Your task to perform on an android device: stop showing notifications on the lock screen Image 0: 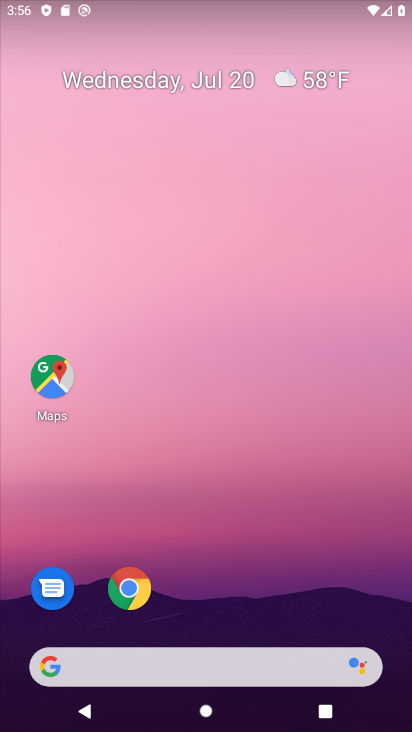
Step 0: drag from (167, 649) to (214, 119)
Your task to perform on an android device: stop showing notifications on the lock screen Image 1: 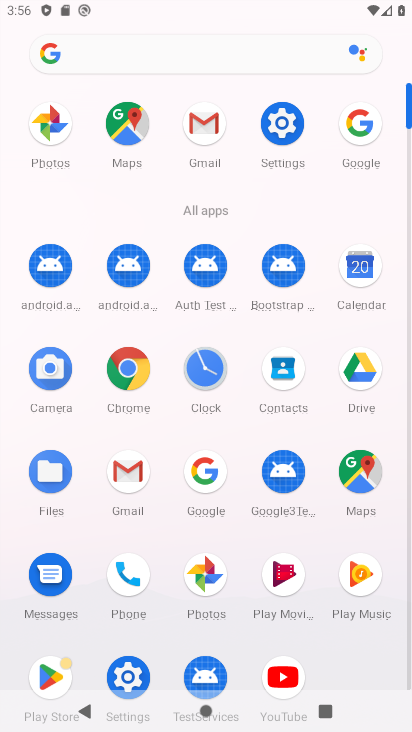
Step 1: click (279, 133)
Your task to perform on an android device: stop showing notifications on the lock screen Image 2: 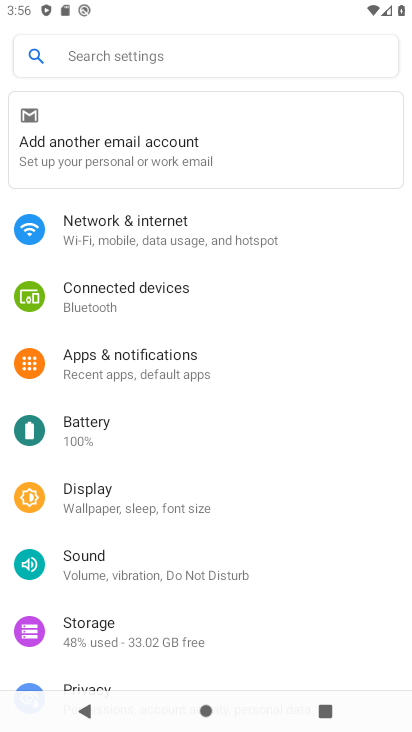
Step 2: drag from (107, 657) to (154, 257)
Your task to perform on an android device: stop showing notifications on the lock screen Image 3: 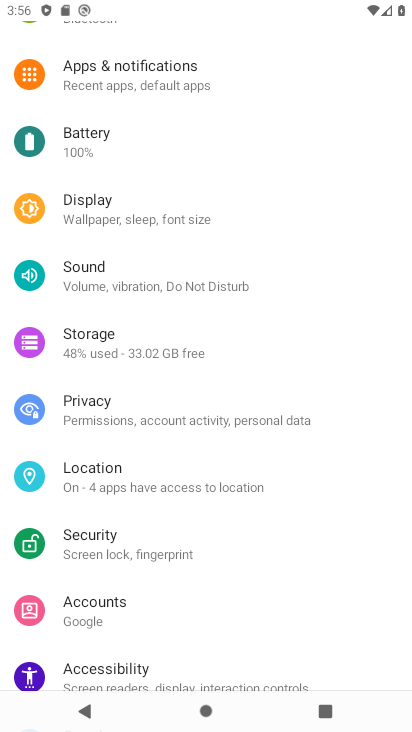
Step 3: click (107, 410)
Your task to perform on an android device: stop showing notifications on the lock screen Image 4: 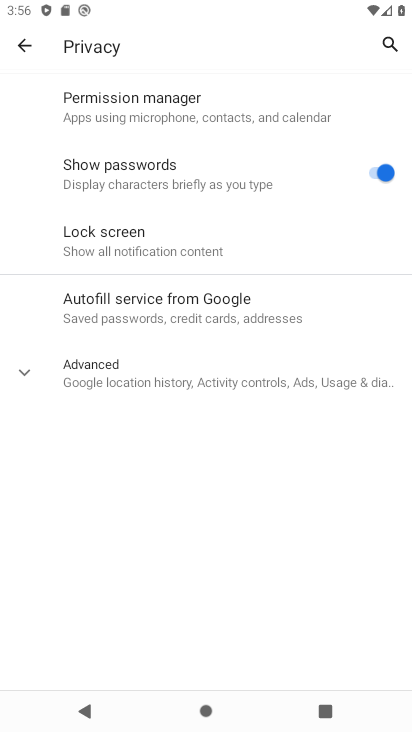
Step 4: click (95, 366)
Your task to perform on an android device: stop showing notifications on the lock screen Image 5: 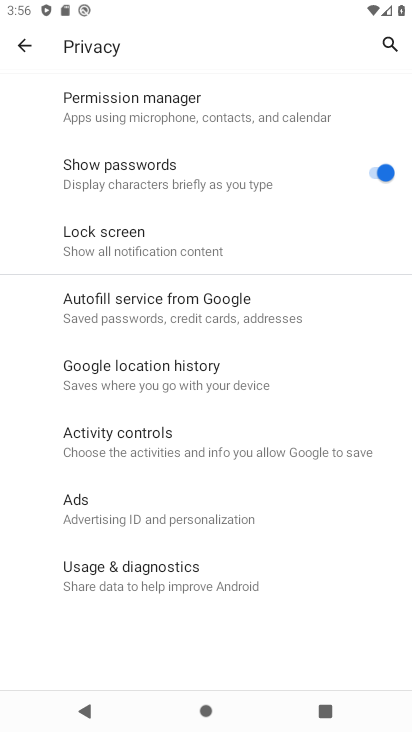
Step 5: click (100, 240)
Your task to perform on an android device: stop showing notifications on the lock screen Image 6: 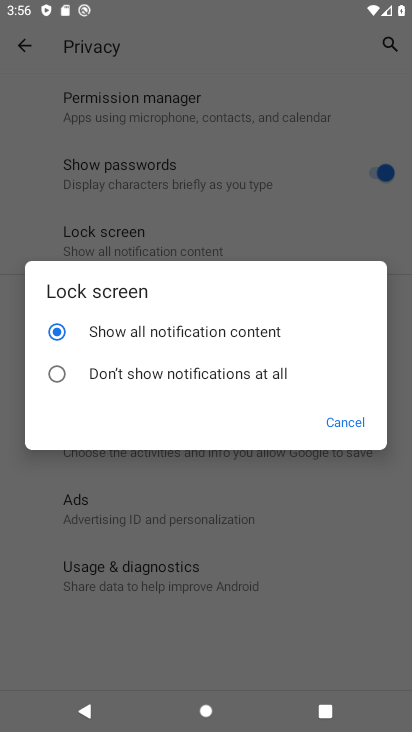
Step 6: click (146, 376)
Your task to perform on an android device: stop showing notifications on the lock screen Image 7: 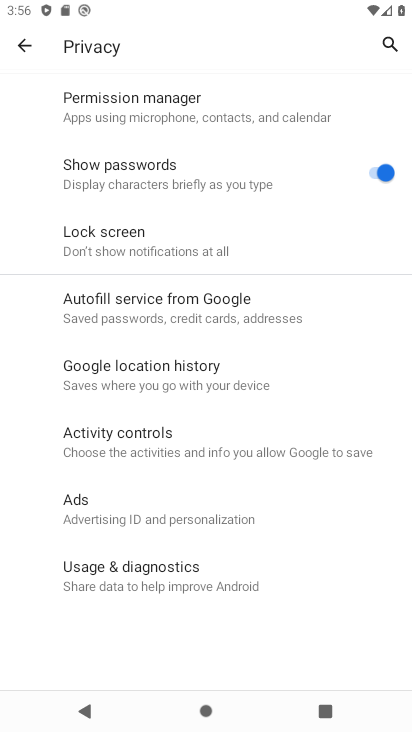
Step 7: task complete